Your task to perform on an android device: create a new album in the google photos Image 0: 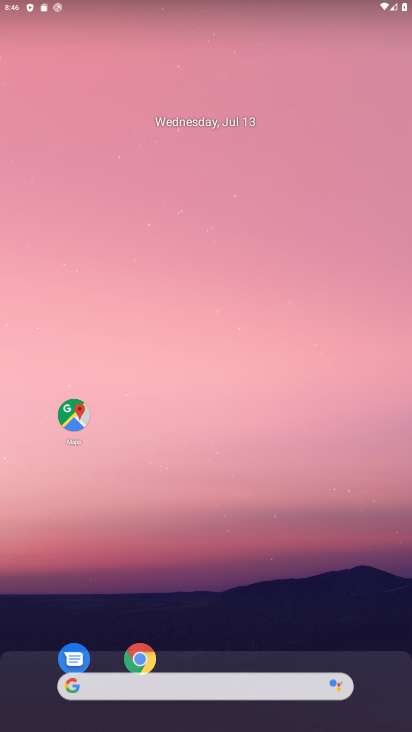
Step 0: drag from (390, 668) to (331, 44)
Your task to perform on an android device: create a new album in the google photos Image 1: 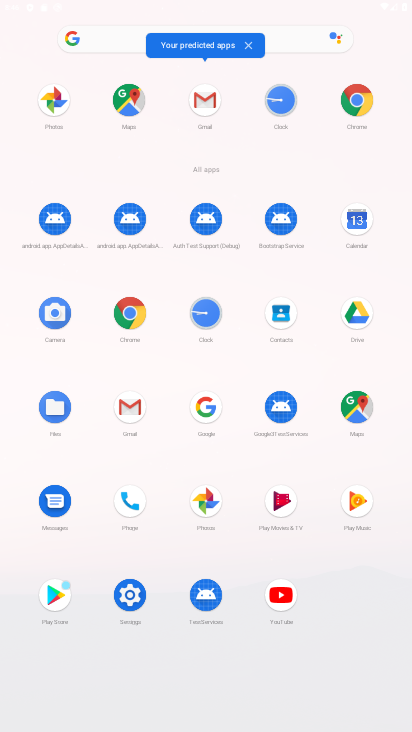
Step 1: click (206, 501)
Your task to perform on an android device: create a new album in the google photos Image 2: 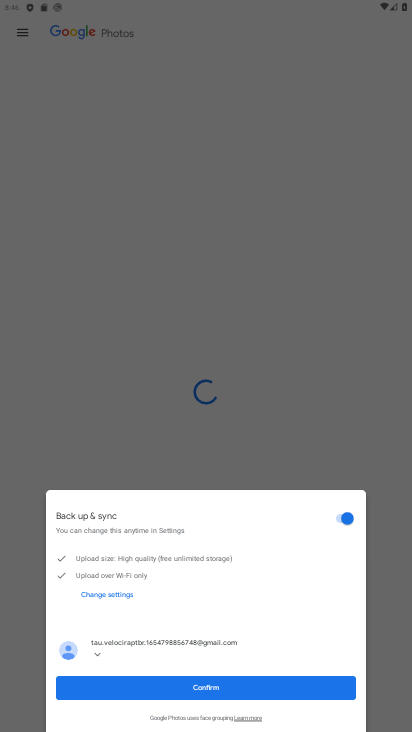
Step 2: click (201, 687)
Your task to perform on an android device: create a new album in the google photos Image 3: 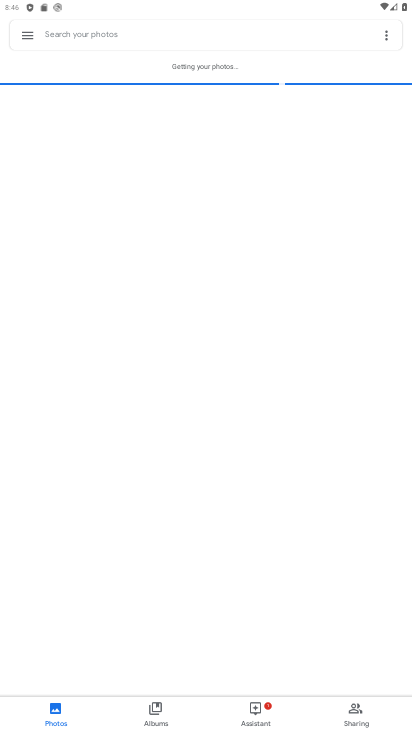
Step 3: click (157, 712)
Your task to perform on an android device: create a new album in the google photos Image 4: 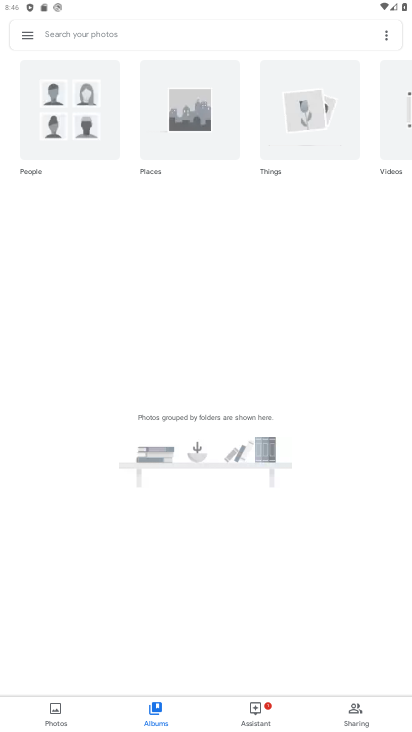
Step 4: task complete